Your task to perform on an android device: turn off sleep mode Image 0: 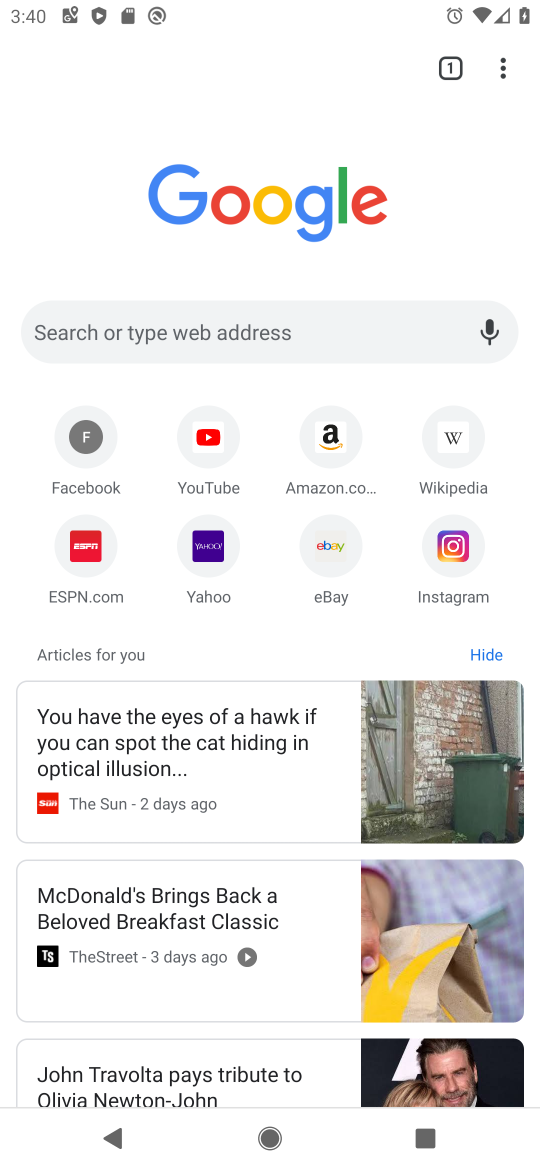
Step 0: press home button
Your task to perform on an android device: turn off sleep mode Image 1: 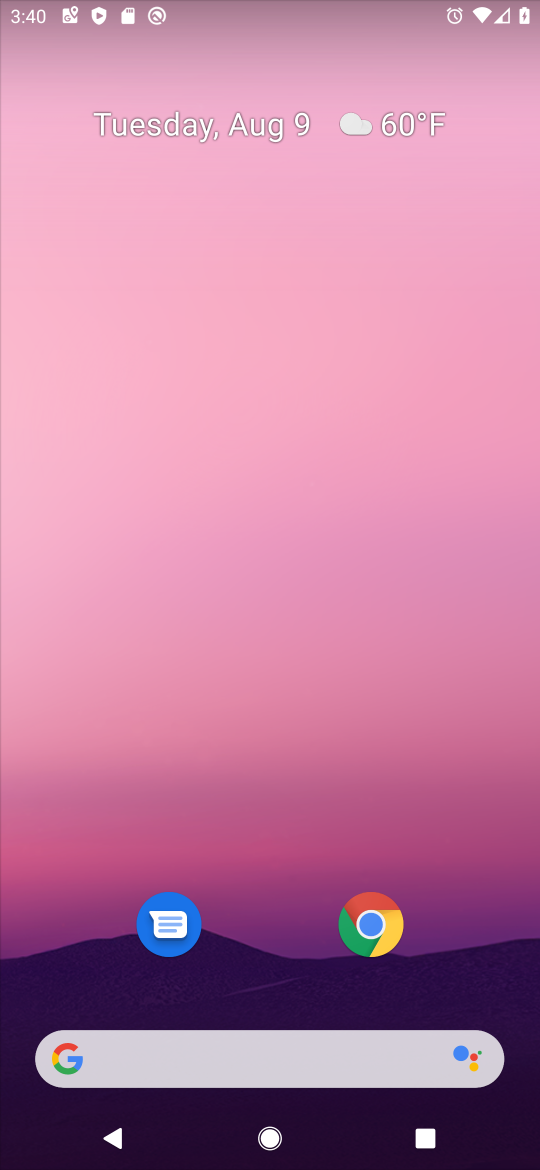
Step 1: drag from (302, 887) to (371, 21)
Your task to perform on an android device: turn off sleep mode Image 2: 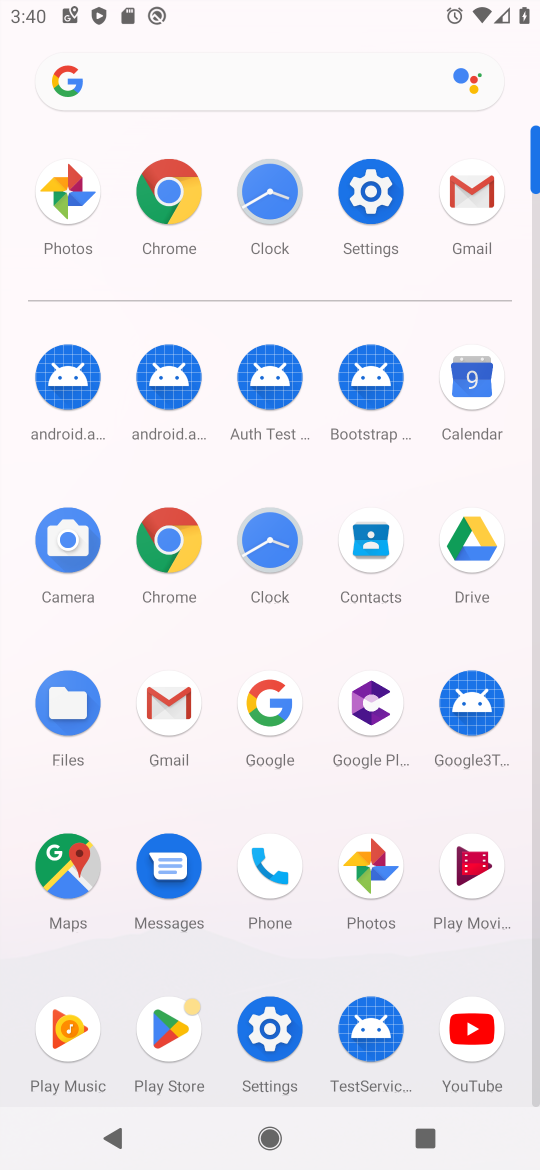
Step 2: click (374, 178)
Your task to perform on an android device: turn off sleep mode Image 3: 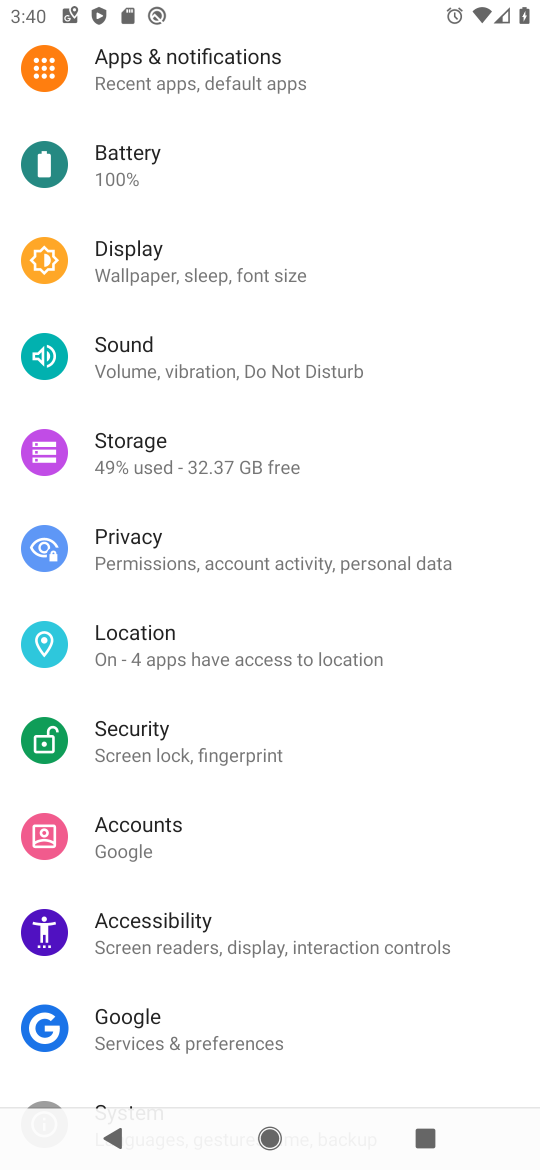
Step 3: click (221, 276)
Your task to perform on an android device: turn off sleep mode Image 4: 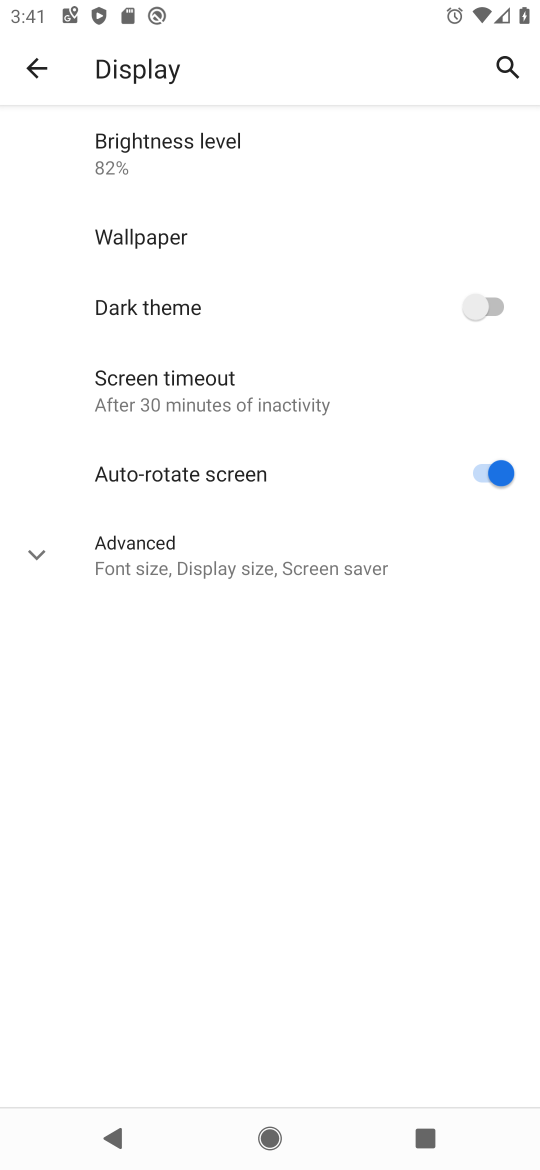
Step 4: click (41, 550)
Your task to perform on an android device: turn off sleep mode Image 5: 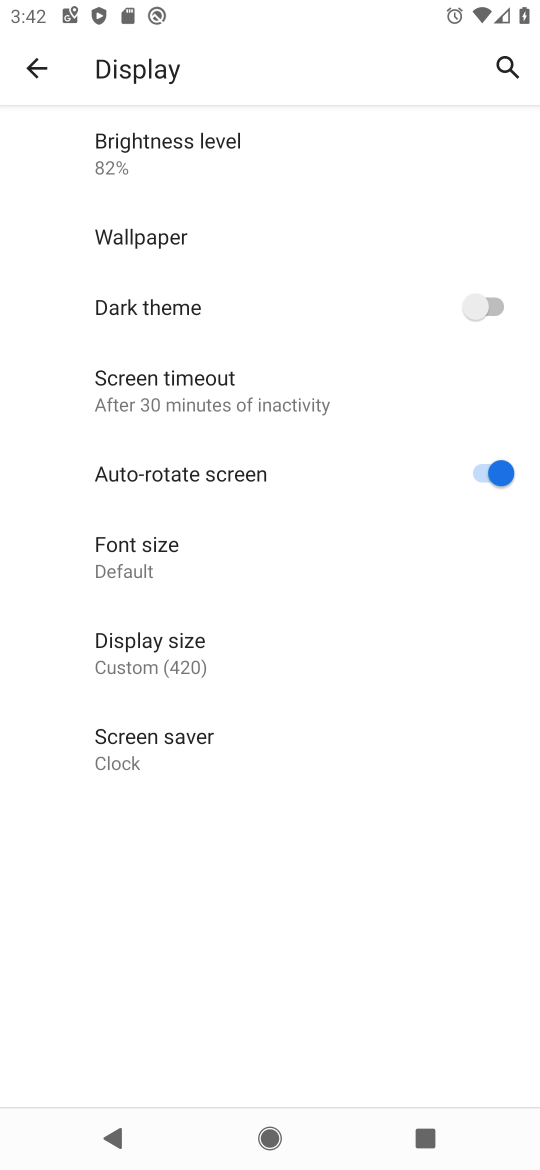
Step 5: task complete